Your task to perform on an android device: open app "Microsoft Outlook" Image 0: 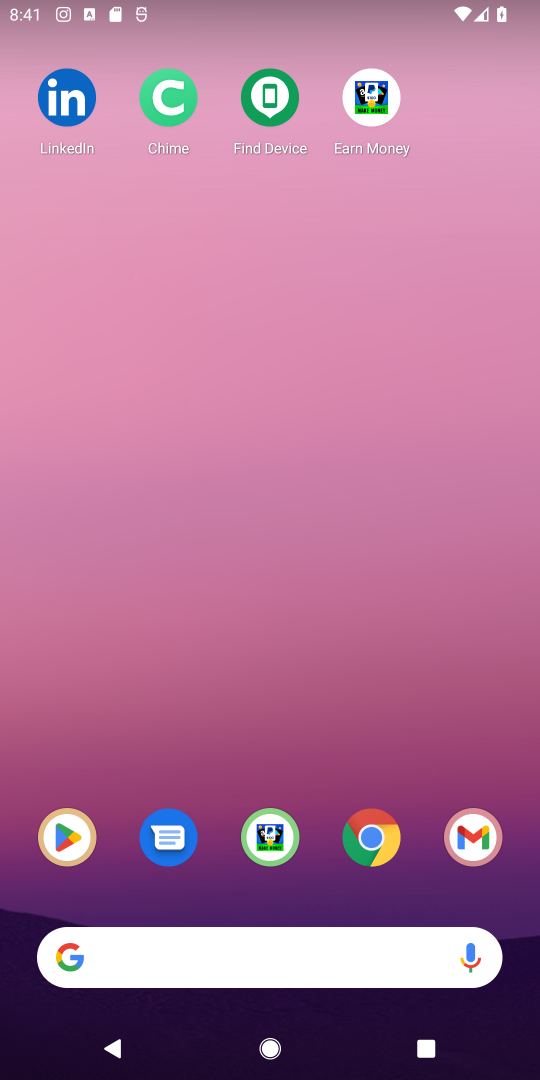
Step 0: click (74, 847)
Your task to perform on an android device: open app "Microsoft Outlook" Image 1: 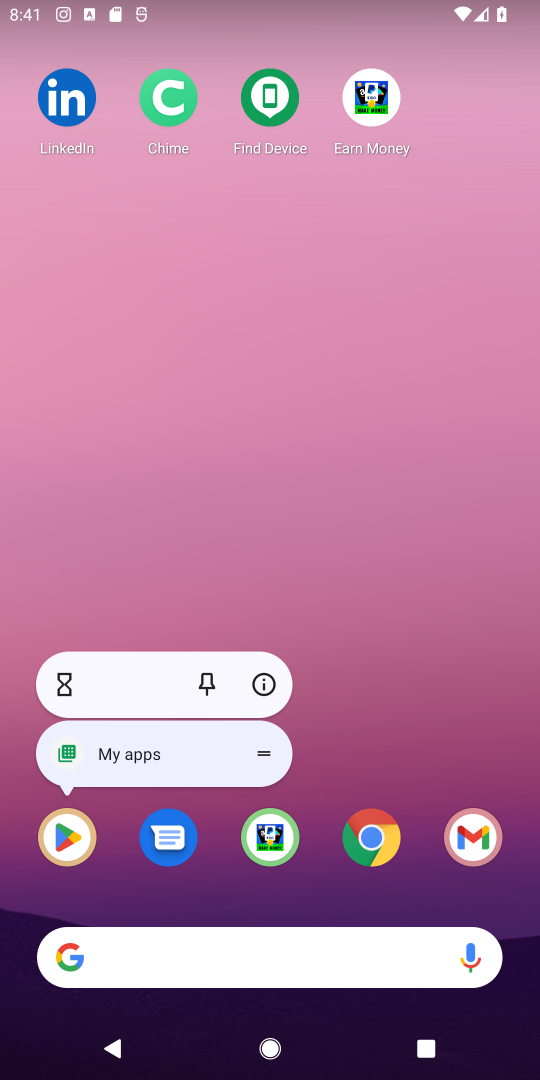
Step 1: click (74, 847)
Your task to perform on an android device: open app "Microsoft Outlook" Image 2: 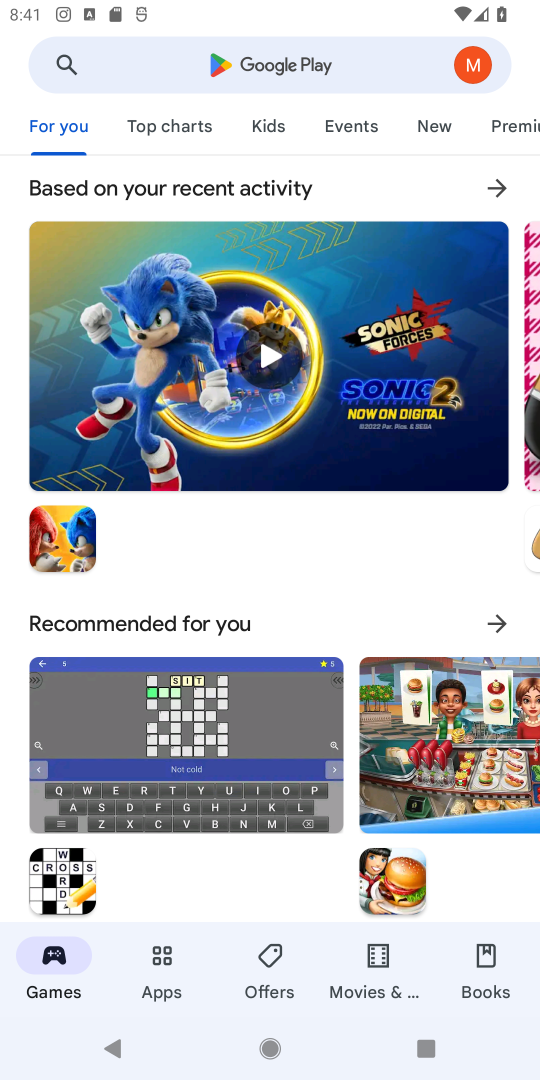
Step 2: click (137, 67)
Your task to perform on an android device: open app "Microsoft Outlook" Image 3: 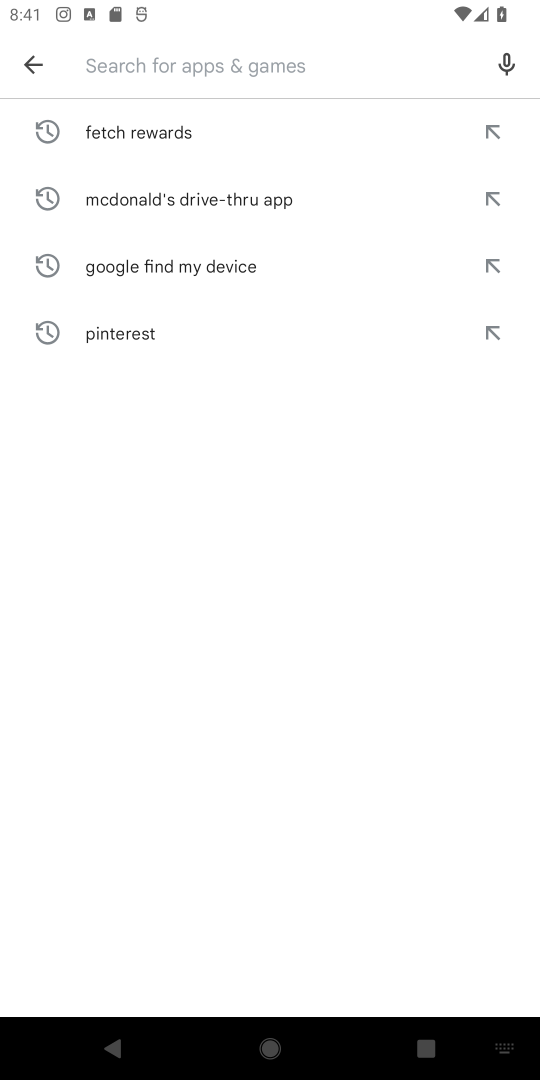
Step 3: type "Microsoft Outlook"
Your task to perform on an android device: open app "Microsoft Outlook" Image 4: 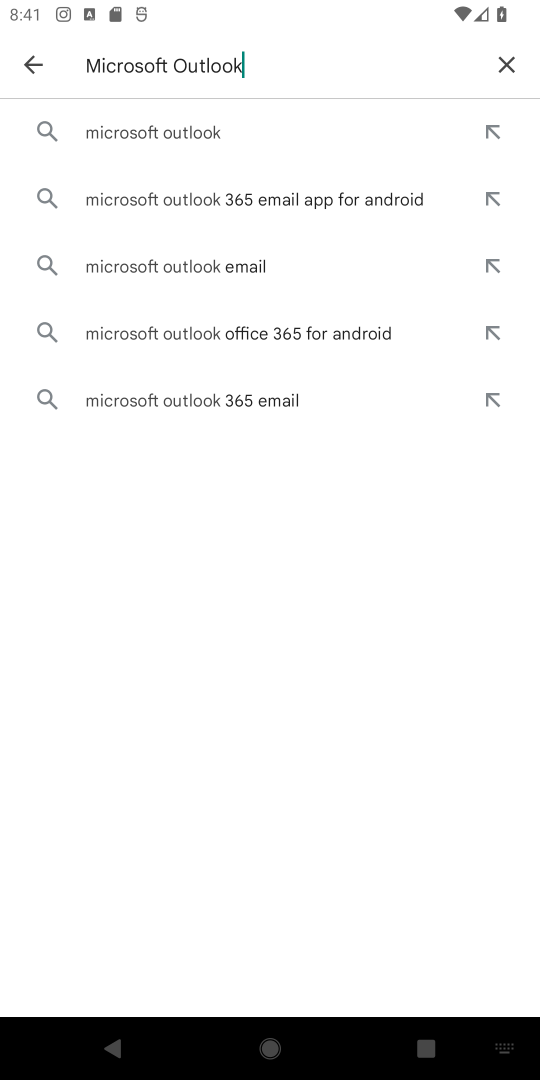
Step 4: click (183, 141)
Your task to perform on an android device: open app "Microsoft Outlook" Image 5: 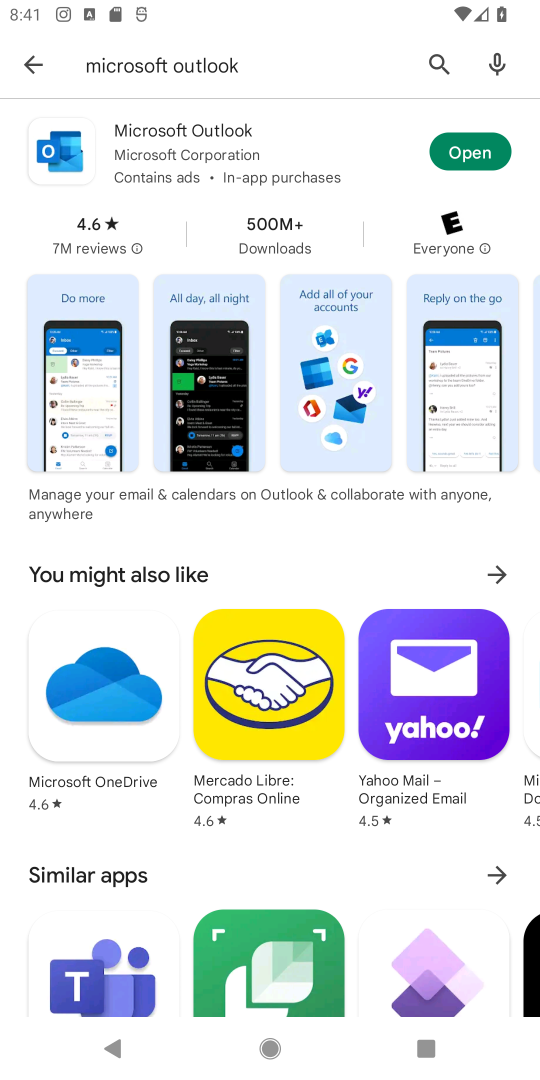
Step 5: click (507, 149)
Your task to perform on an android device: open app "Microsoft Outlook" Image 6: 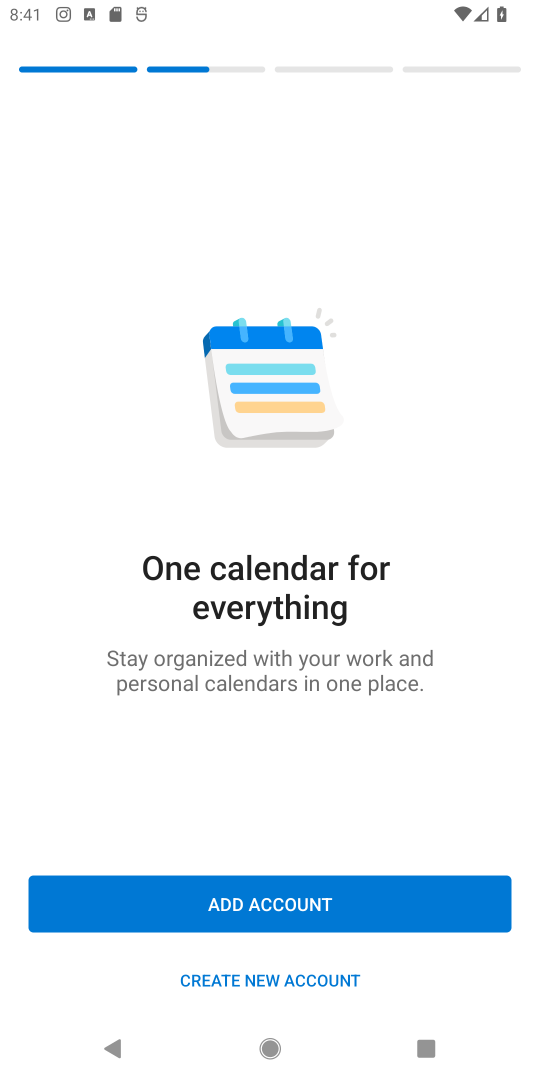
Step 6: task complete